Your task to perform on an android device: Go to battery settings Image 0: 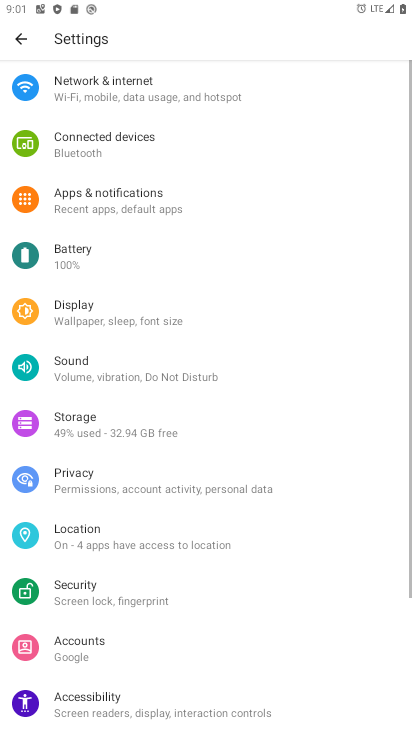
Step 0: press back button
Your task to perform on an android device: Go to battery settings Image 1: 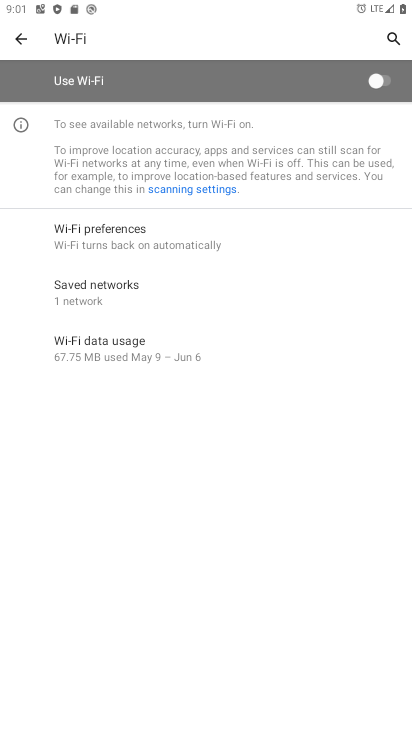
Step 1: press home button
Your task to perform on an android device: Go to battery settings Image 2: 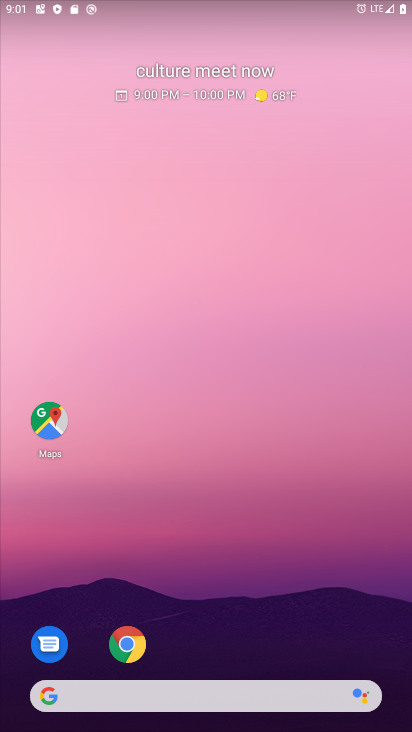
Step 2: drag from (245, 714) to (197, 220)
Your task to perform on an android device: Go to battery settings Image 3: 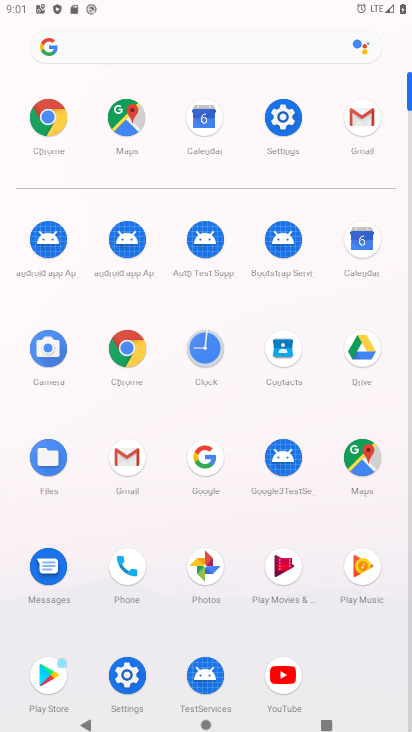
Step 3: click (277, 114)
Your task to perform on an android device: Go to battery settings Image 4: 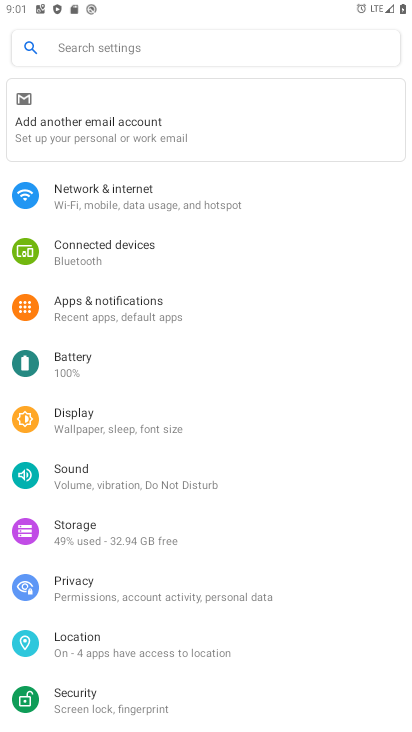
Step 4: click (131, 367)
Your task to perform on an android device: Go to battery settings Image 5: 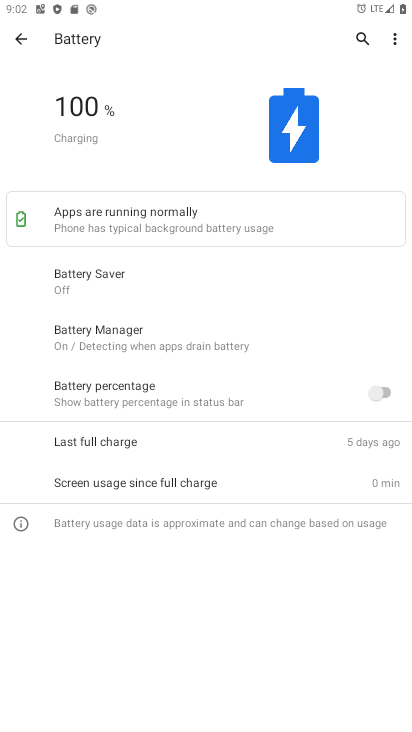
Step 5: task complete